Your task to perform on an android device: Open maps Image 0: 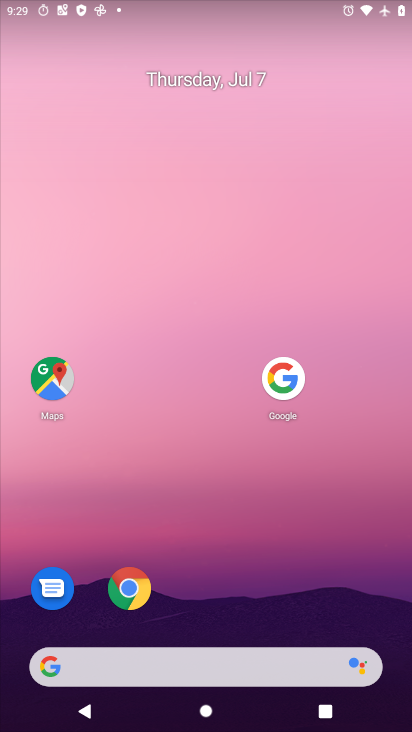
Step 0: press home button
Your task to perform on an android device: Open maps Image 1: 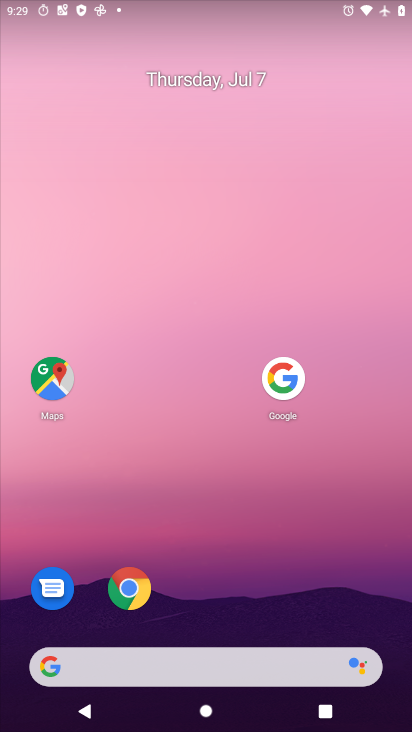
Step 1: click (39, 371)
Your task to perform on an android device: Open maps Image 2: 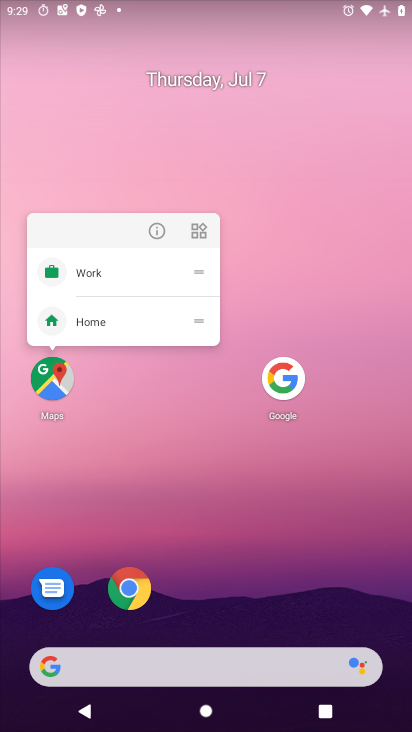
Step 2: click (58, 383)
Your task to perform on an android device: Open maps Image 3: 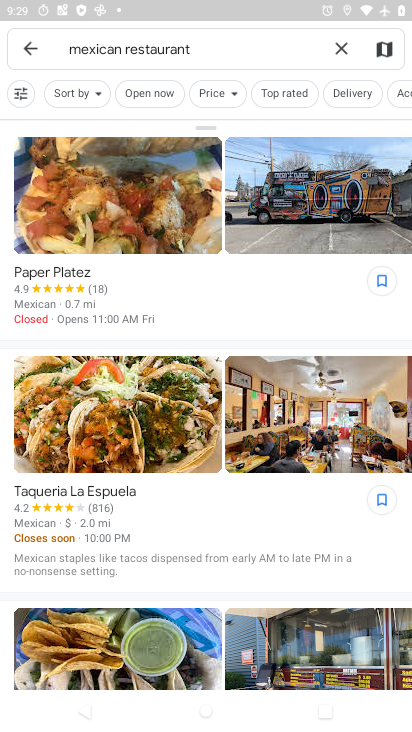
Step 3: click (341, 49)
Your task to perform on an android device: Open maps Image 4: 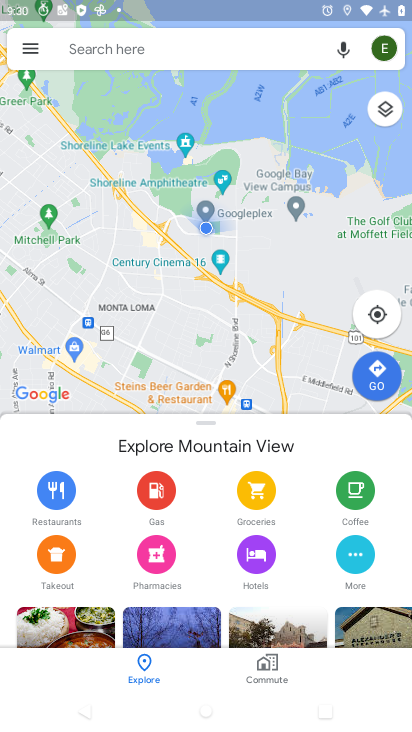
Step 4: task complete